Your task to perform on an android device: What's on my calendar tomorrow? Image 0: 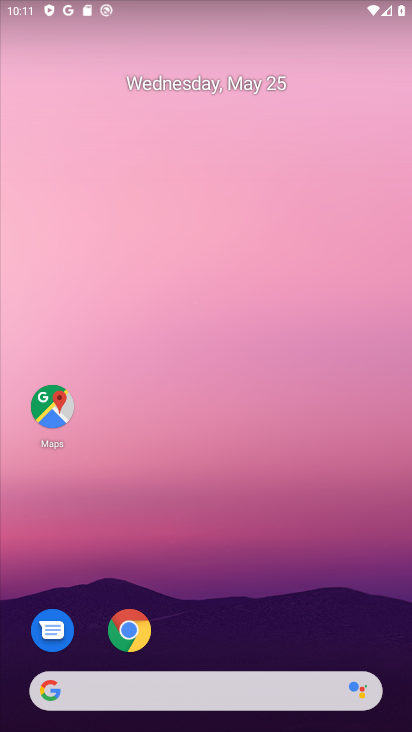
Step 0: drag from (317, 624) to (304, 127)
Your task to perform on an android device: What's on my calendar tomorrow? Image 1: 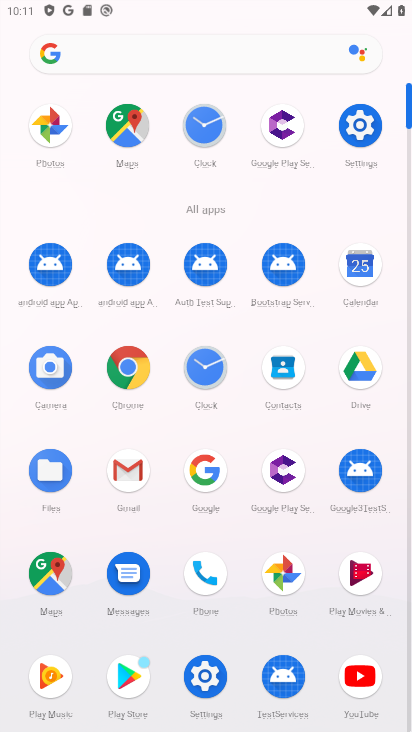
Step 1: click (346, 268)
Your task to perform on an android device: What's on my calendar tomorrow? Image 2: 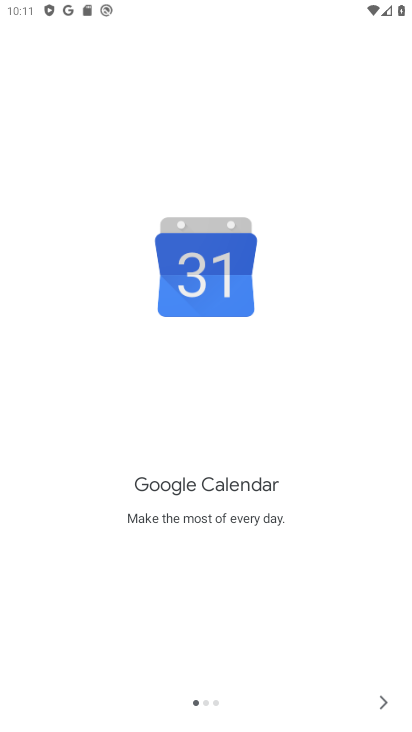
Step 2: click (387, 701)
Your task to perform on an android device: What's on my calendar tomorrow? Image 3: 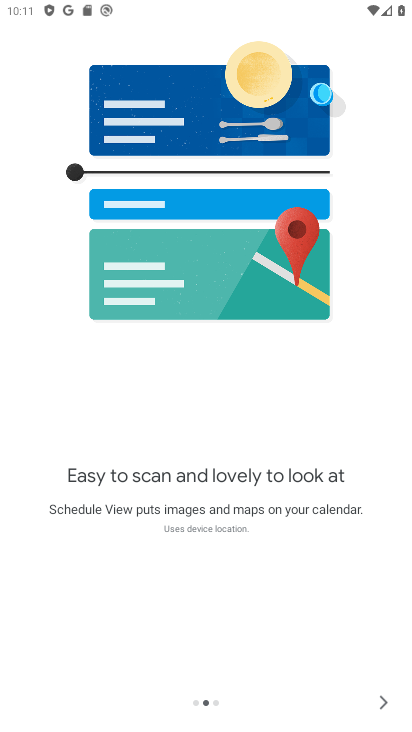
Step 3: click (388, 701)
Your task to perform on an android device: What's on my calendar tomorrow? Image 4: 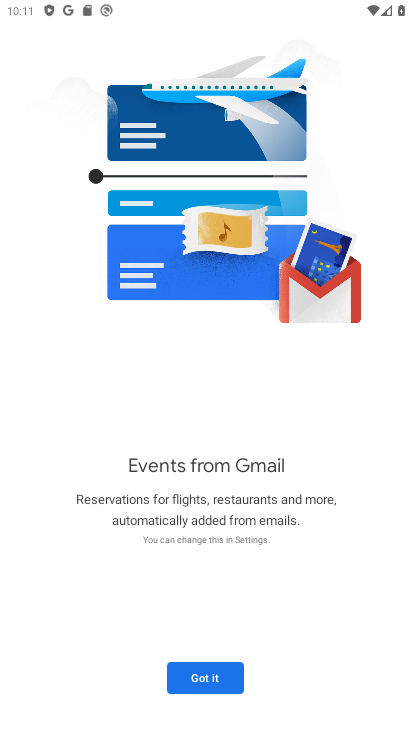
Step 4: click (198, 670)
Your task to perform on an android device: What's on my calendar tomorrow? Image 5: 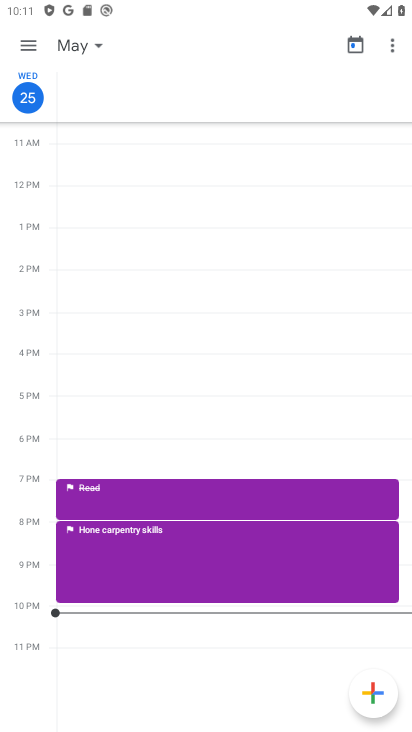
Step 5: click (23, 41)
Your task to perform on an android device: What's on my calendar tomorrow? Image 6: 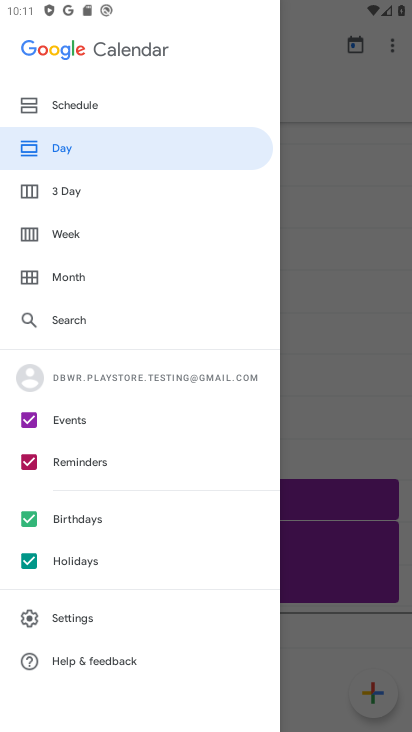
Step 6: click (332, 219)
Your task to perform on an android device: What's on my calendar tomorrow? Image 7: 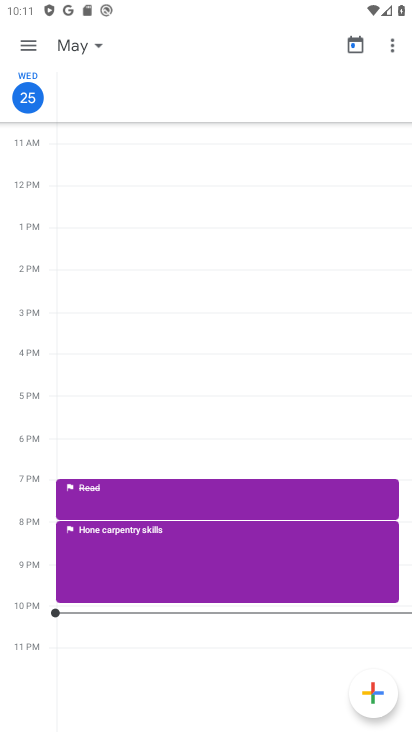
Step 7: click (86, 45)
Your task to perform on an android device: What's on my calendar tomorrow? Image 8: 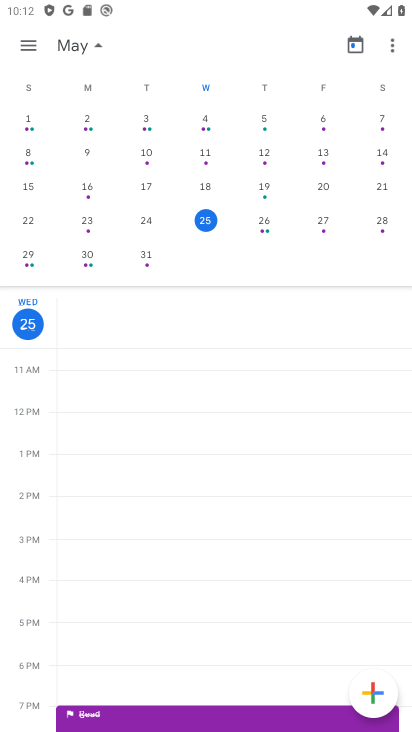
Step 8: click (272, 225)
Your task to perform on an android device: What's on my calendar tomorrow? Image 9: 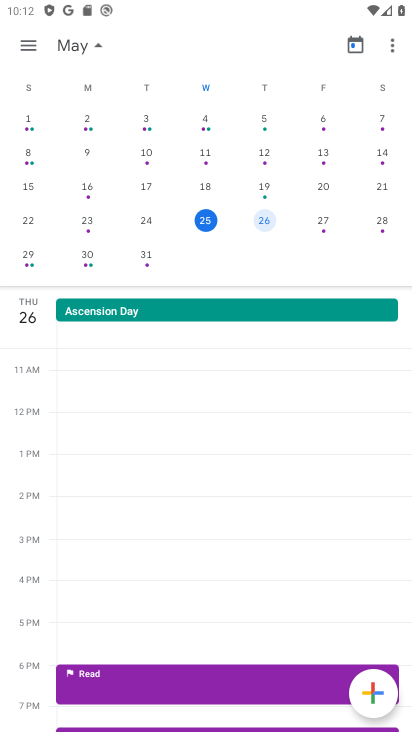
Step 9: task complete